Your task to perform on an android device: Show me the alarms in the clock app Image 0: 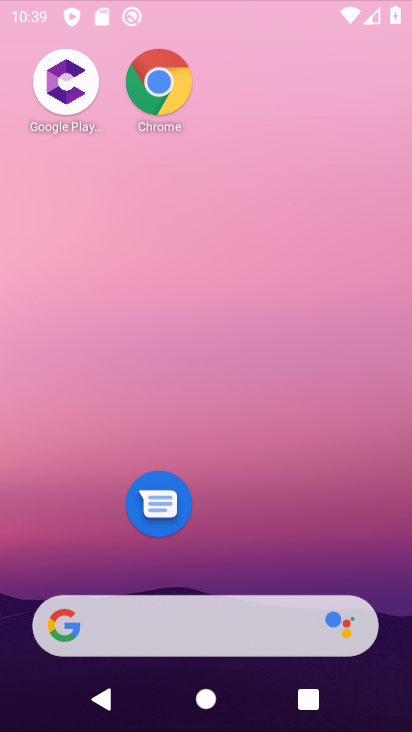
Step 0: press back button
Your task to perform on an android device: Show me the alarms in the clock app Image 1: 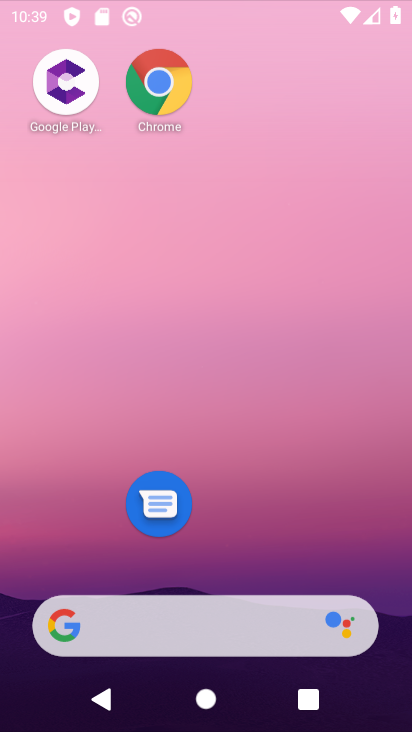
Step 1: click (28, 67)
Your task to perform on an android device: Show me the alarms in the clock app Image 2: 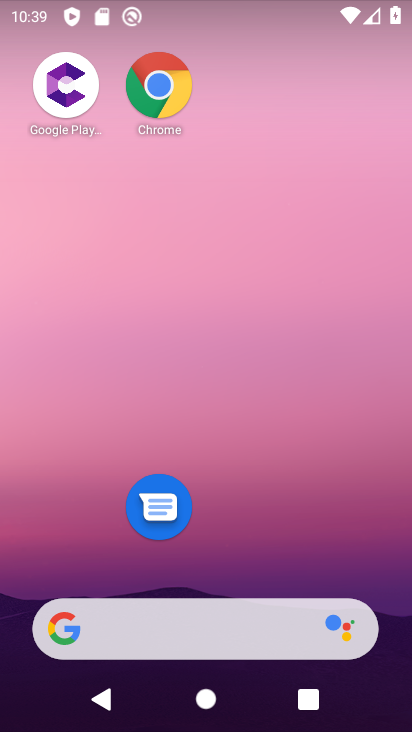
Step 2: drag from (249, 709) to (220, 33)
Your task to perform on an android device: Show me the alarms in the clock app Image 3: 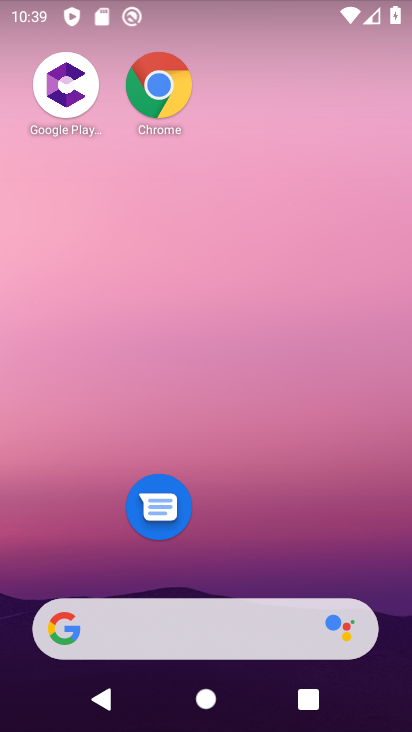
Step 3: drag from (243, 645) to (208, 10)
Your task to perform on an android device: Show me the alarms in the clock app Image 4: 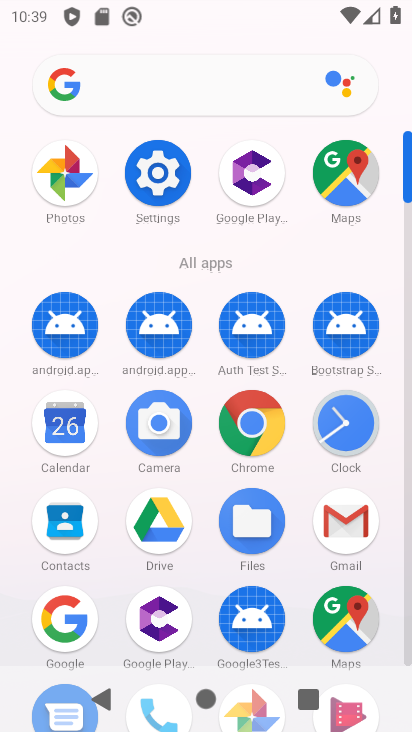
Step 4: click (340, 419)
Your task to perform on an android device: Show me the alarms in the clock app Image 5: 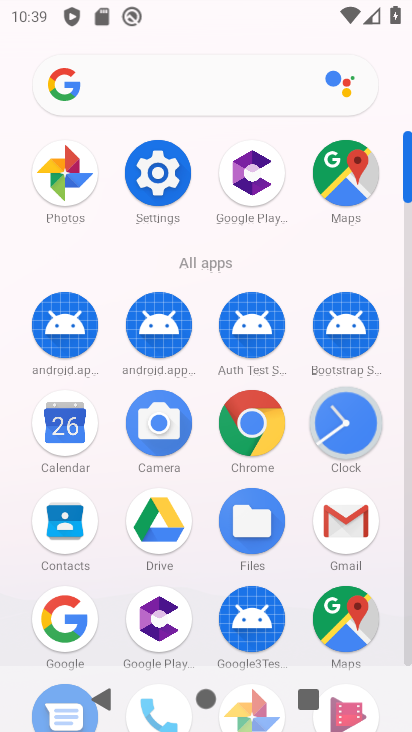
Step 5: click (340, 423)
Your task to perform on an android device: Show me the alarms in the clock app Image 6: 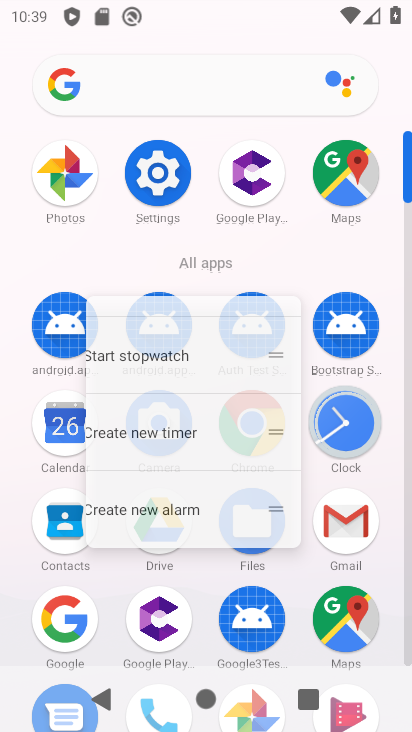
Step 6: click (342, 420)
Your task to perform on an android device: Show me the alarms in the clock app Image 7: 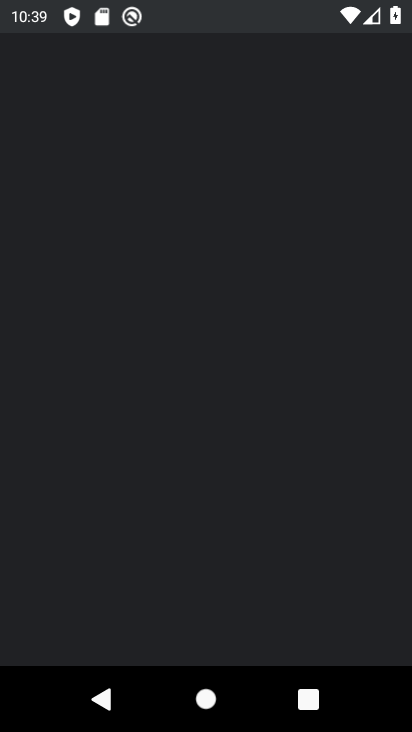
Step 7: click (342, 420)
Your task to perform on an android device: Show me the alarms in the clock app Image 8: 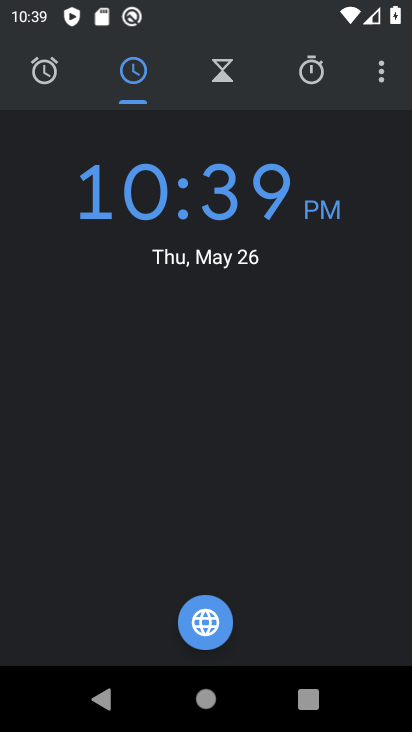
Step 8: drag from (386, 80) to (180, 147)
Your task to perform on an android device: Show me the alarms in the clock app Image 9: 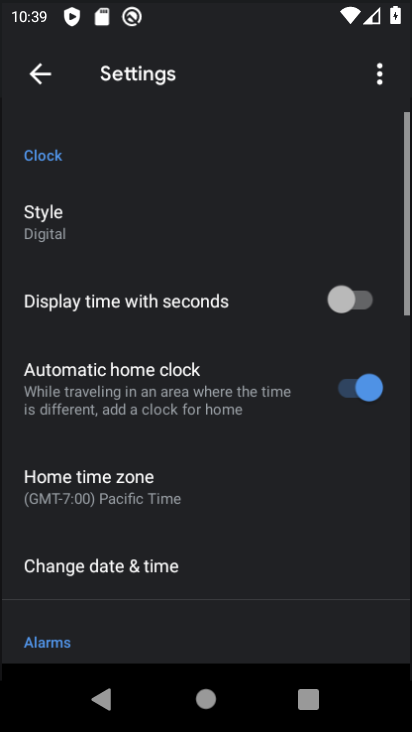
Step 9: click (180, 147)
Your task to perform on an android device: Show me the alarms in the clock app Image 10: 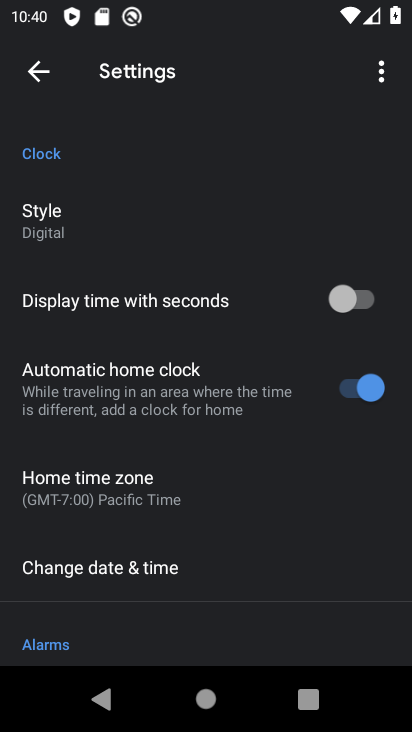
Step 10: click (47, 67)
Your task to perform on an android device: Show me the alarms in the clock app Image 11: 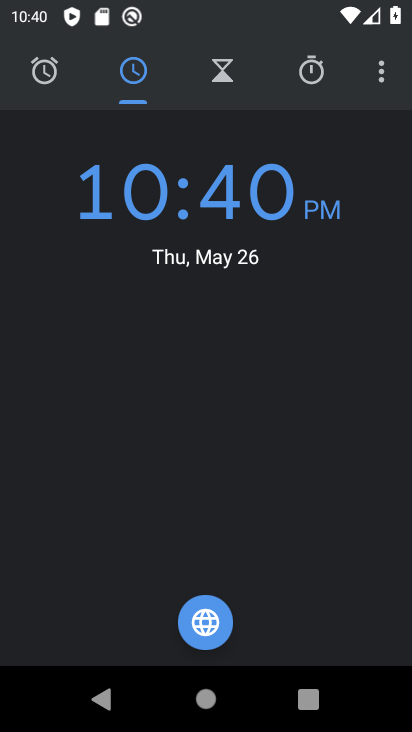
Step 11: click (42, 79)
Your task to perform on an android device: Show me the alarms in the clock app Image 12: 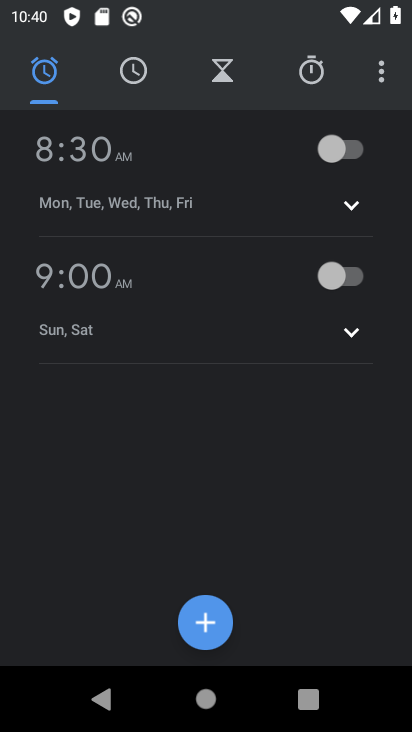
Step 12: click (336, 144)
Your task to perform on an android device: Show me the alarms in the clock app Image 13: 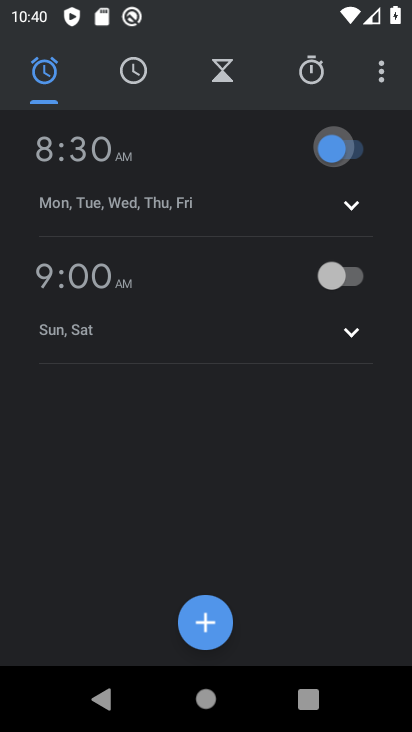
Step 13: click (337, 144)
Your task to perform on an android device: Show me the alarms in the clock app Image 14: 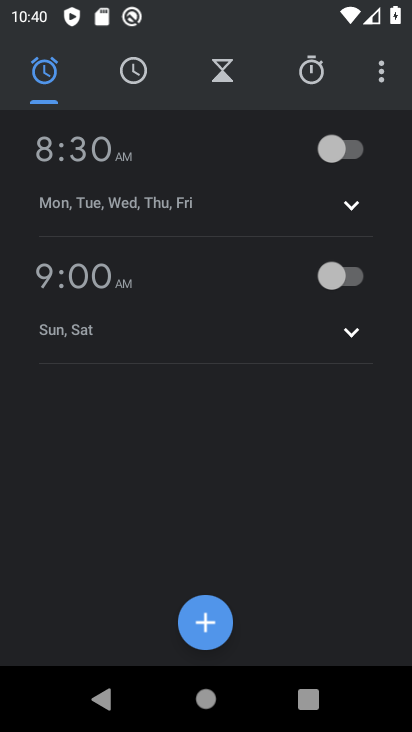
Step 14: click (335, 148)
Your task to perform on an android device: Show me the alarms in the clock app Image 15: 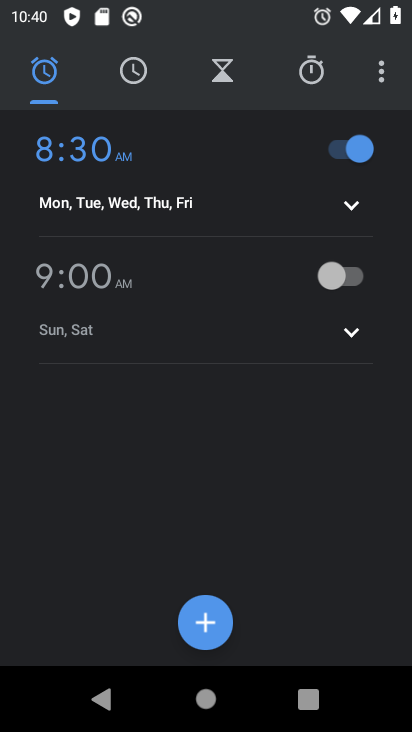
Step 15: task complete